Your task to perform on an android device: Search for usb-a on bestbuy, select the first entry, add it to the cart, then select checkout. Image 0: 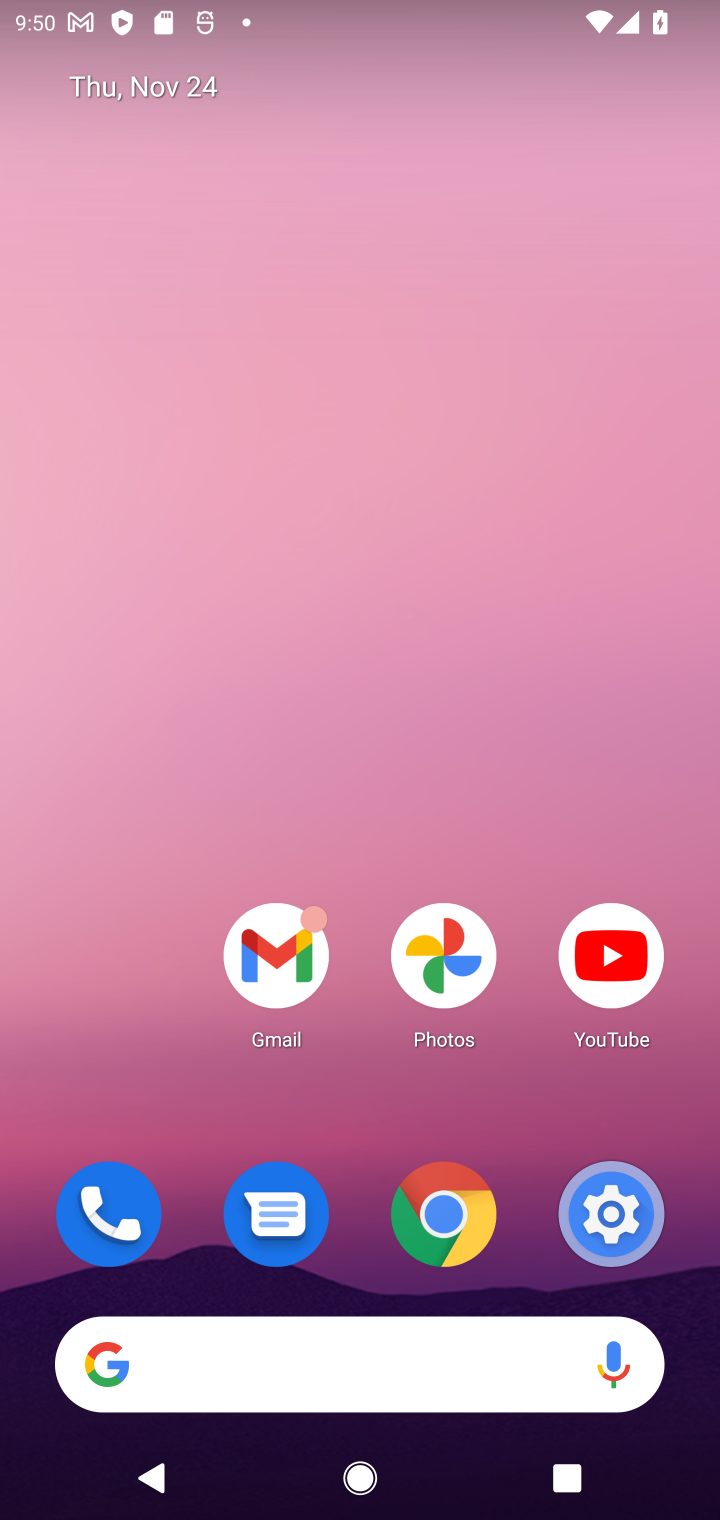
Step 0: click (447, 1381)
Your task to perform on an android device: Search for usb-a on bestbuy, select the first entry, add it to the cart, then select checkout. Image 1: 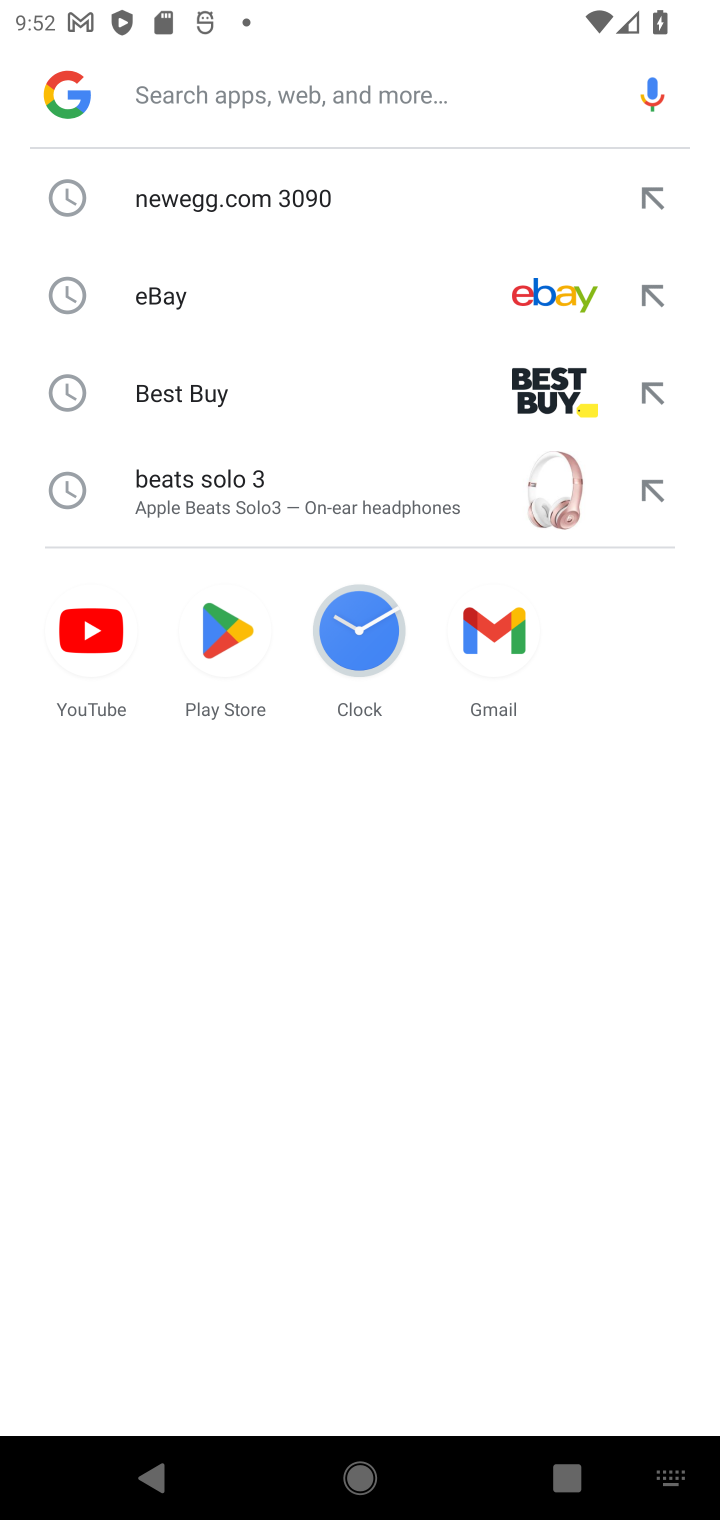
Step 1: type "bestbbuy"
Your task to perform on an android device: Search for usb-a on bestbuy, select the first entry, add it to the cart, then select checkout. Image 2: 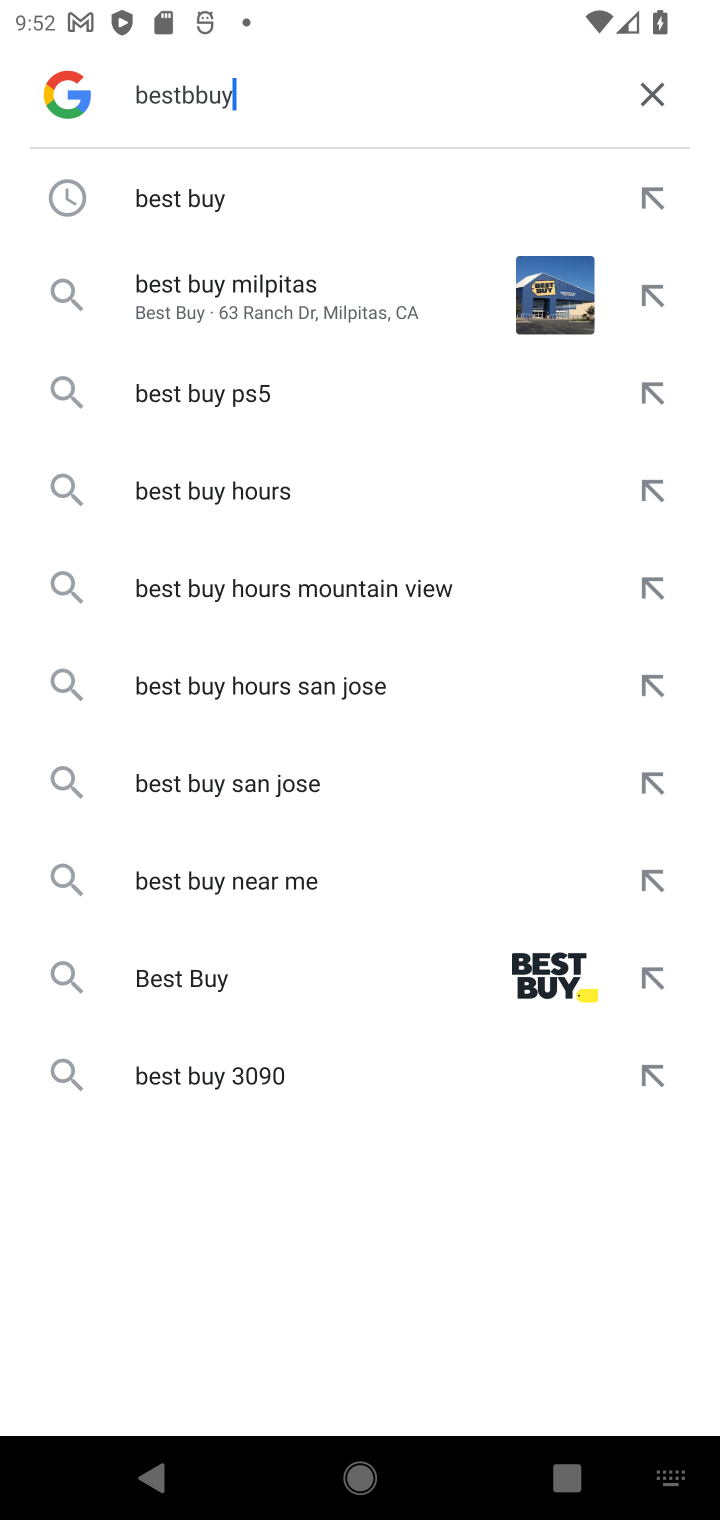
Step 2: click (234, 200)
Your task to perform on an android device: Search for usb-a on bestbuy, select the first entry, add it to the cart, then select checkout. Image 3: 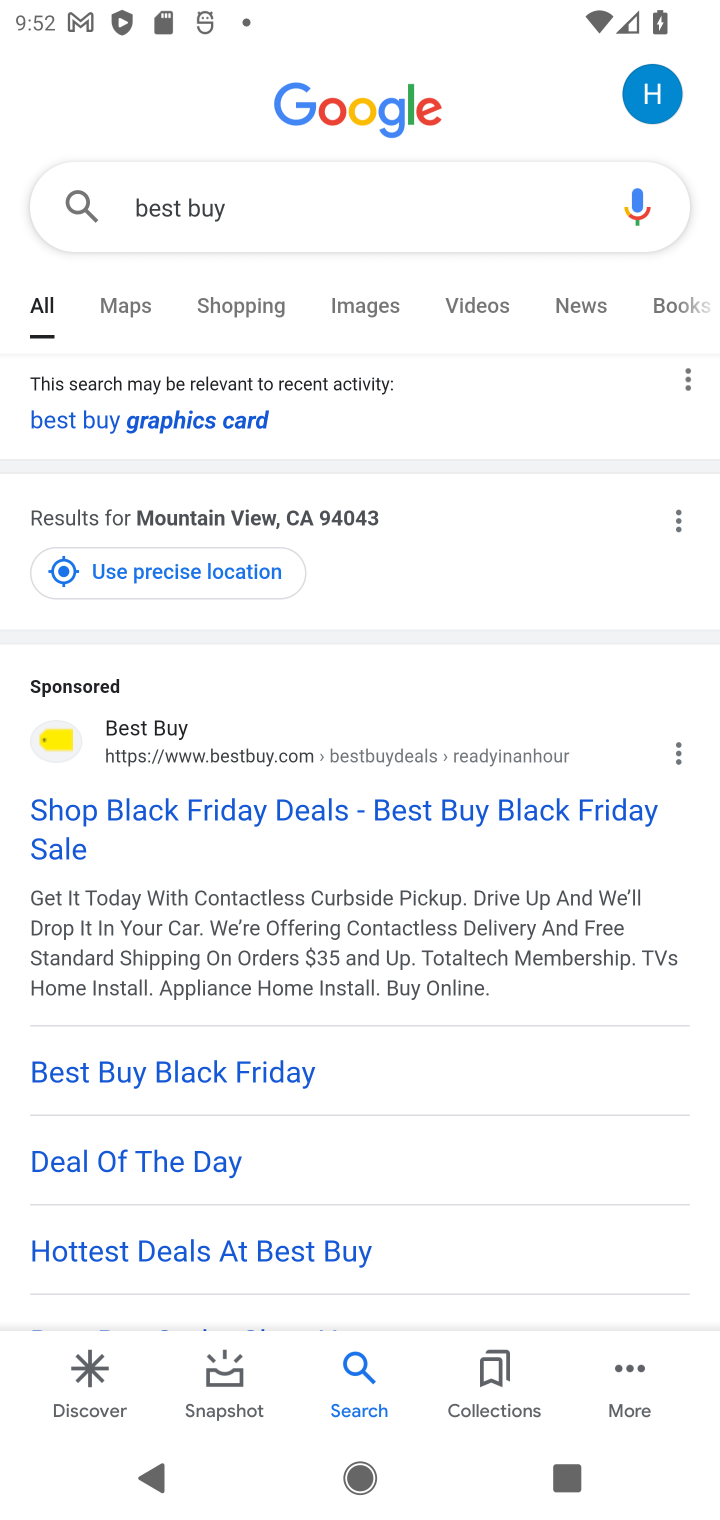
Step 3: click (224, 801)
Your task to perform on an android device: Search for usb-a on bestbuy, select the first entry, add it to the cart, then select checkout. Image 4: 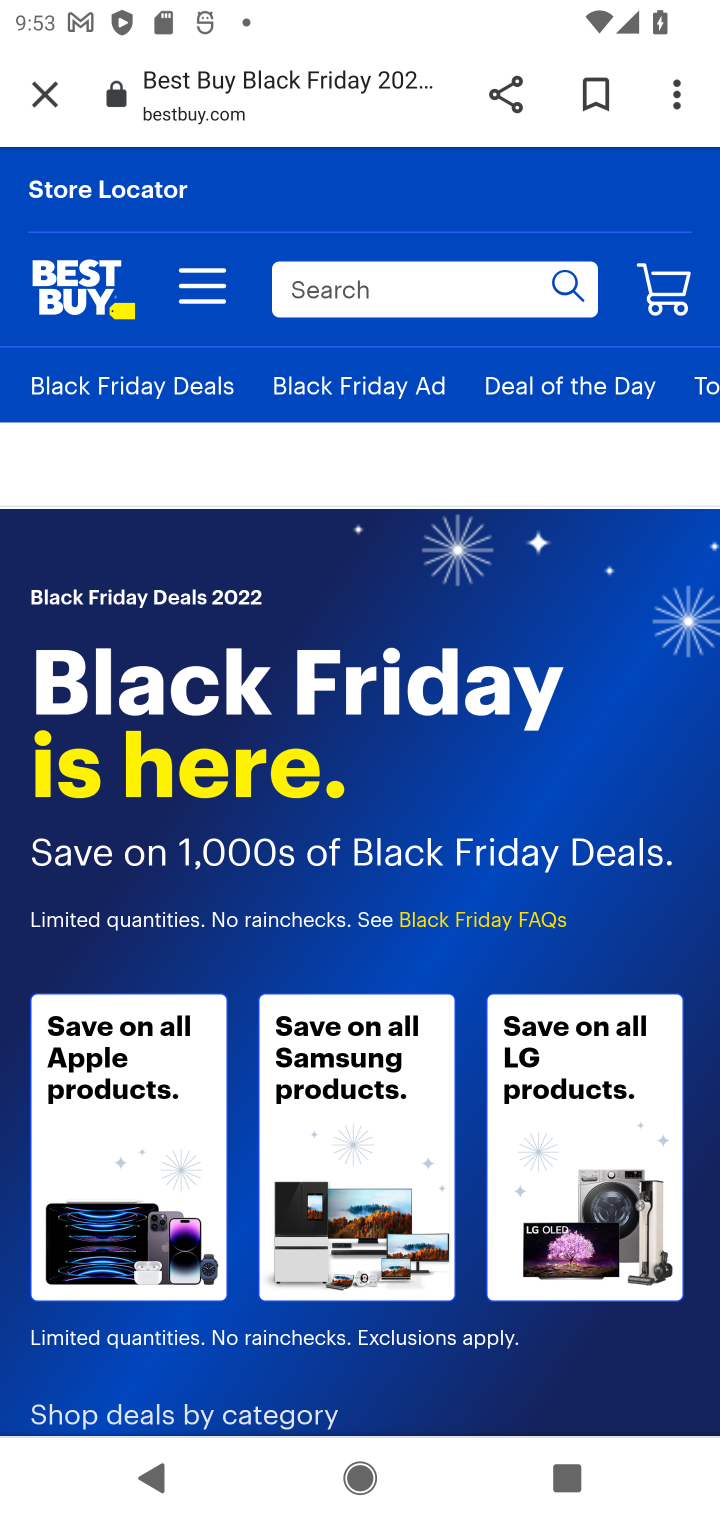
Step 4: click (450, 299)
Your task to perform on an android device: Search for usb-a on bestbuy, select the first entry, add it to the cart, then select checkout. Image 5: 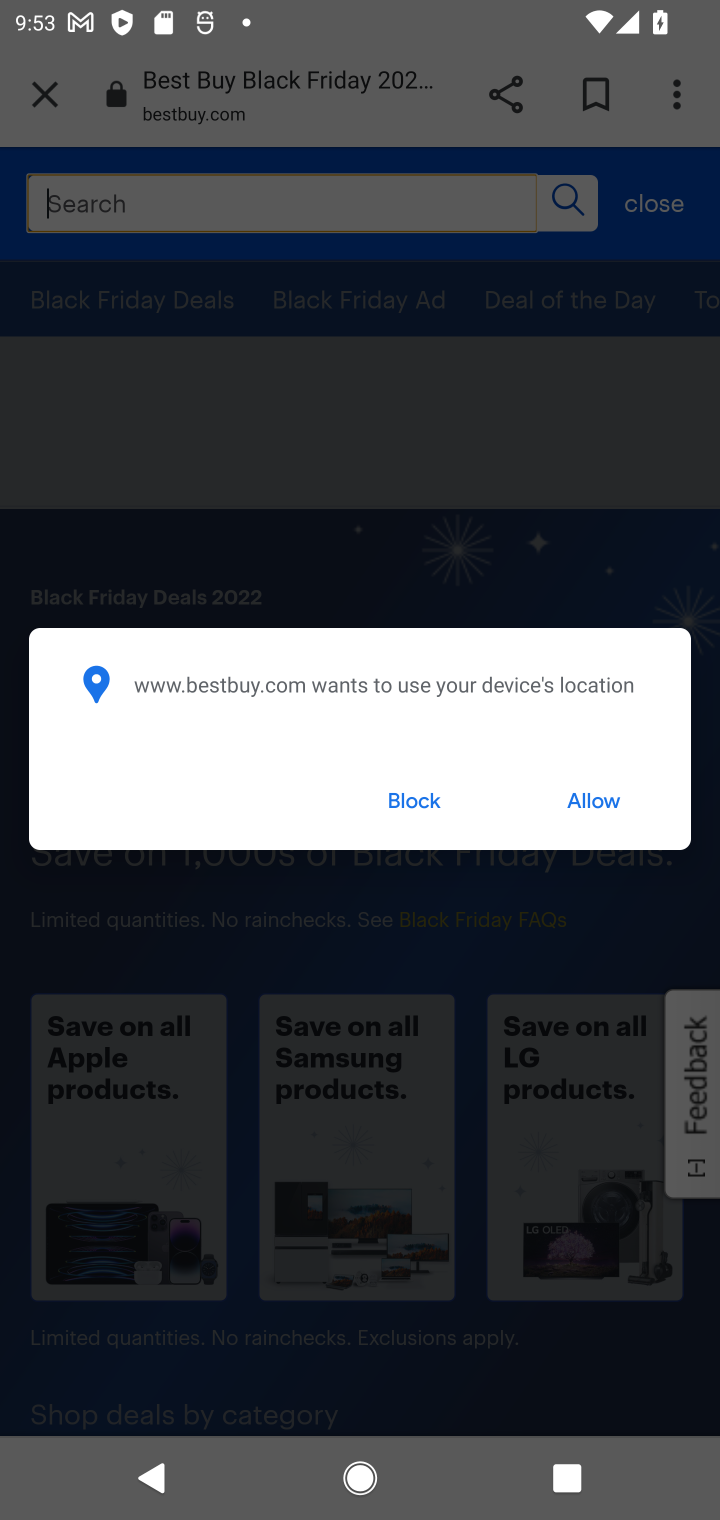
Step 5: type "usb.a"
Your task to perform on an android device: Search for usb-a on bestbuy, select the first entry, add it to the cart, then select checkout. Image 6: 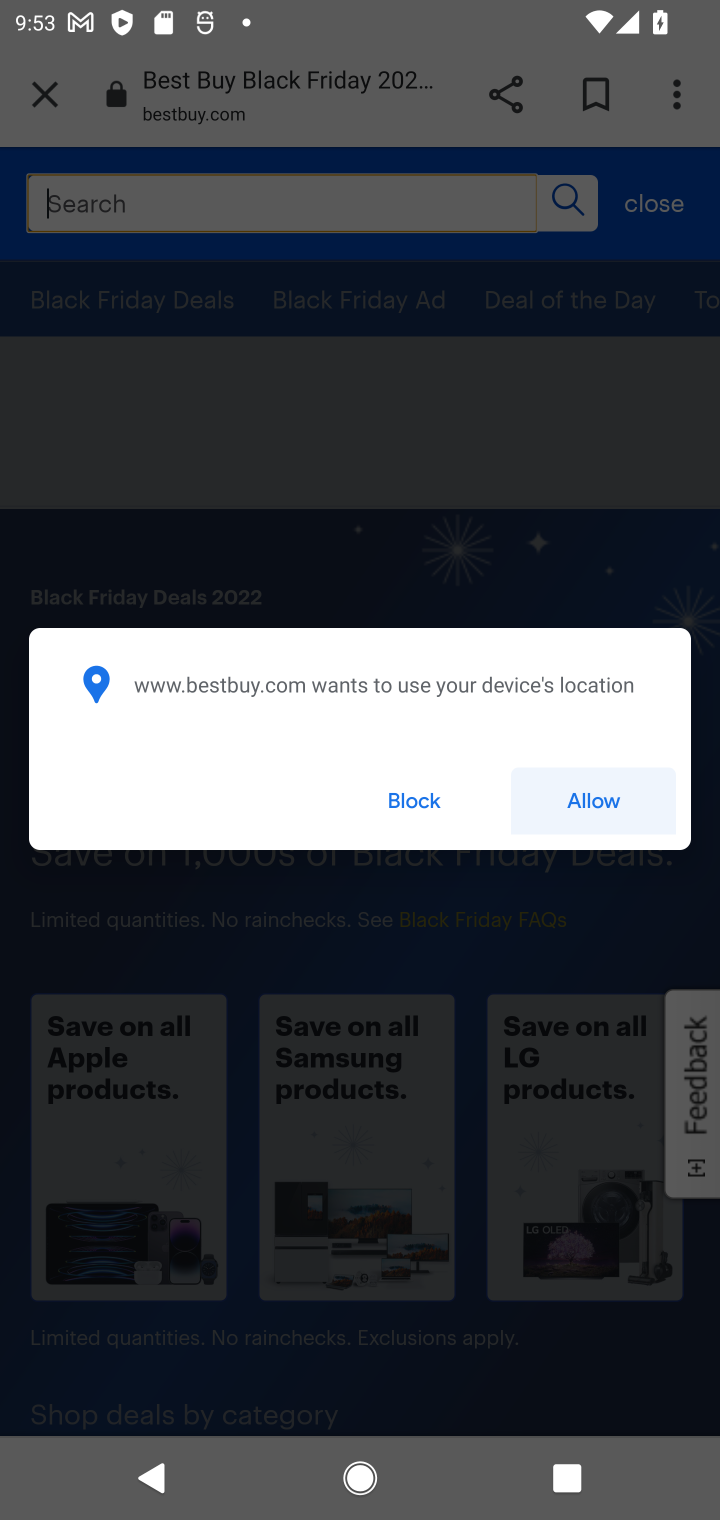
Step 6: click (552, 777)
Your task to perform on an android device: Search for usb-a on bestbuy, select the first entry, add it to the cart, then select checkout. Image 7: 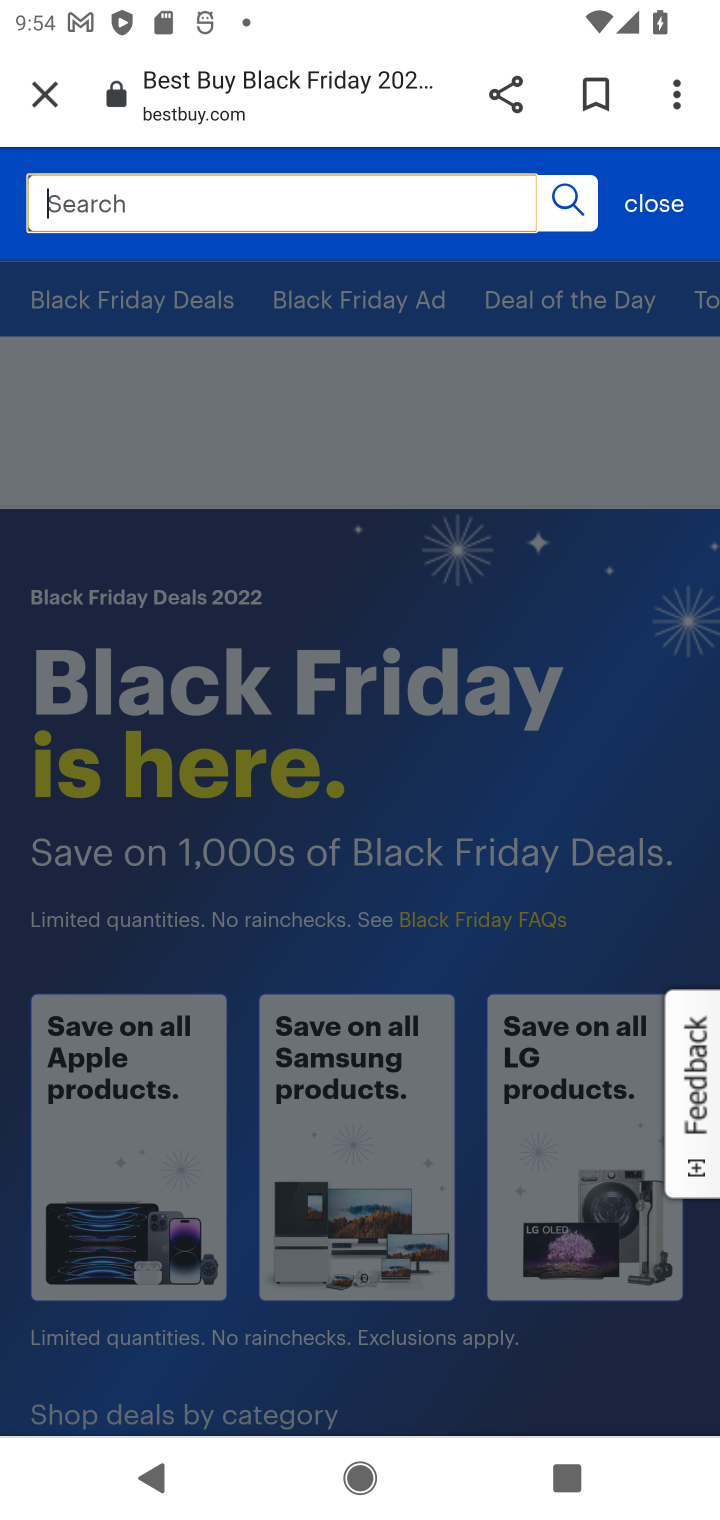
Step 7: task complete